Your task to perform on an android device: Go to internet settings Image 0: 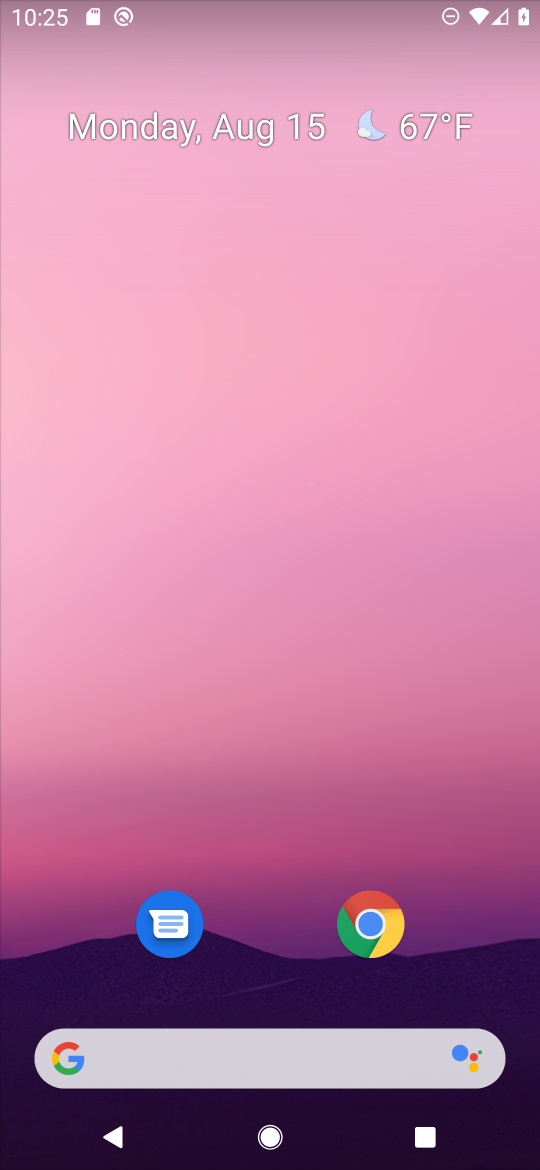
Step 0: drag from (504, 977) to (501, 69)
Your task to perform on an android device: Go to internet settings Image 1: 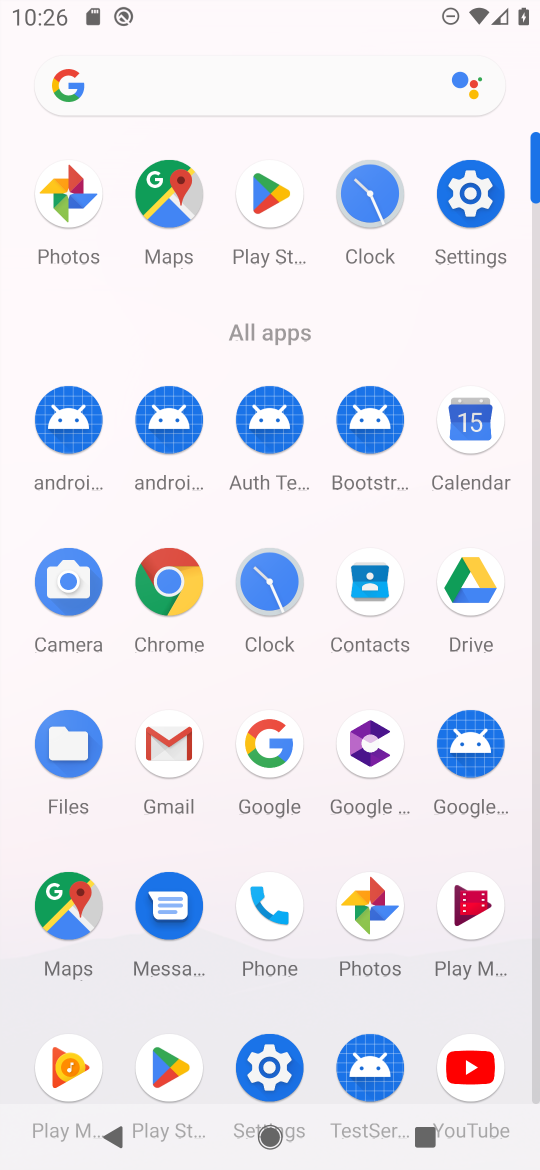
Step 1: click (271, 1068)
Your task to perform on an android device: Go to internet settings Image 2: 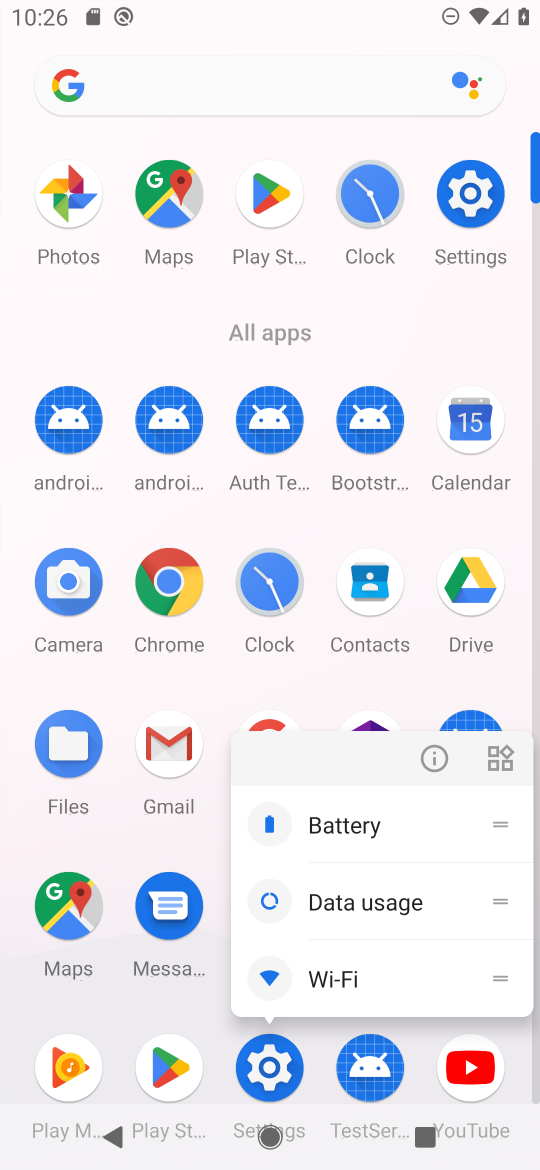
Step 2: click (267, 1062)
Your task to perform on an android device: Go to internet settings Image 3: 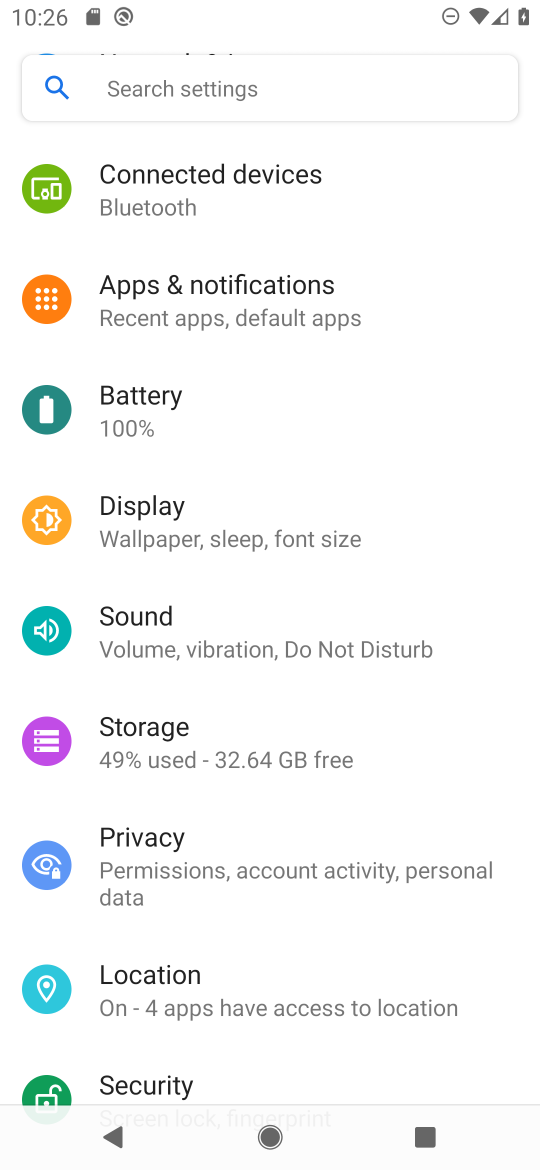
Step 3: drag from (454, 275) to (522, 674)
Your task to perform on an android device: Go to internet settings Image 4: 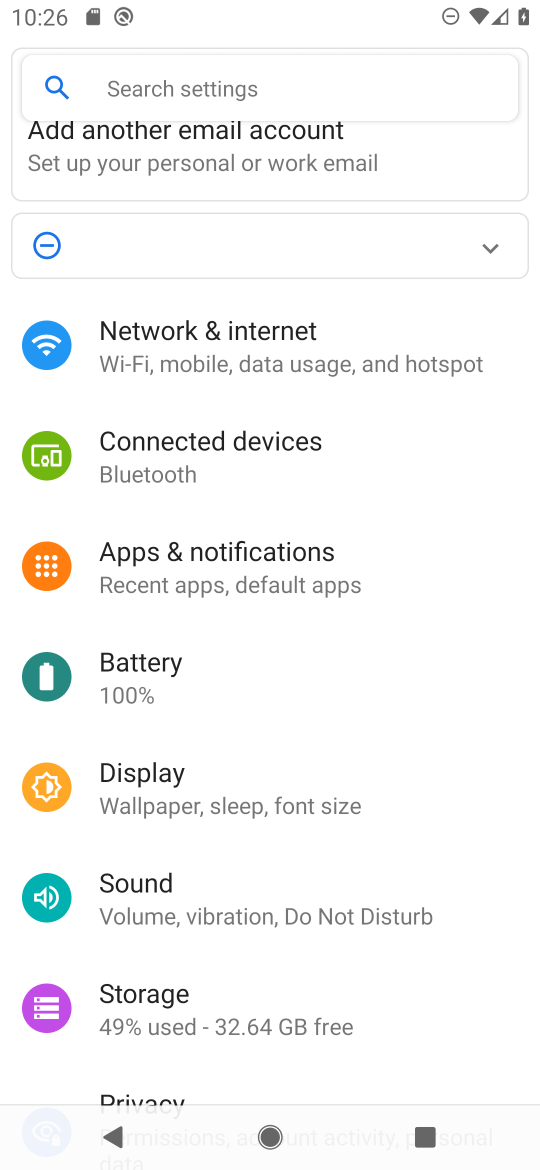
Step 4: click (191, 344)
Your task to perform on an android device: Go to internet settings Image 5: 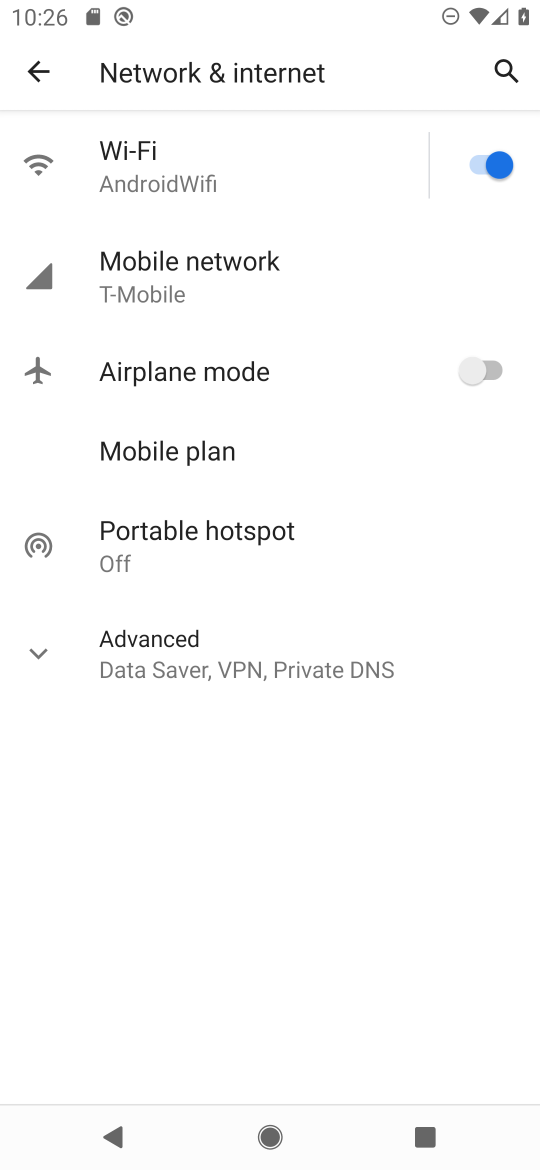
Step 5: click (129, 171)
Your task to perform on an android device: Go to internet settings Image 6: 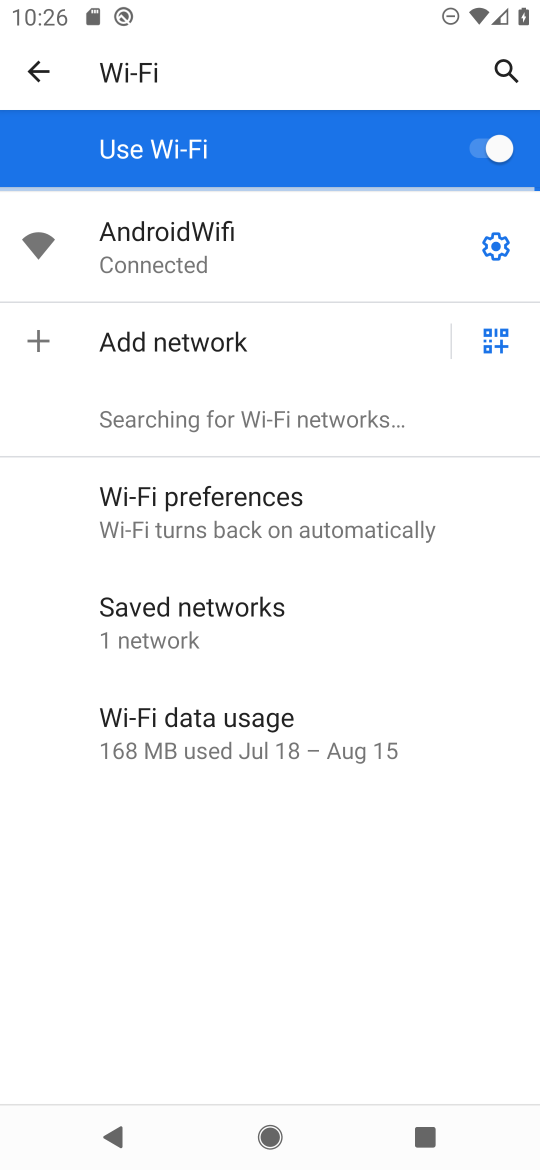
Step 6: task complete